Your task to perform on an android device: Add "alienware area 51" to the cart on bestbuy.com, then select checkout. Image 0: 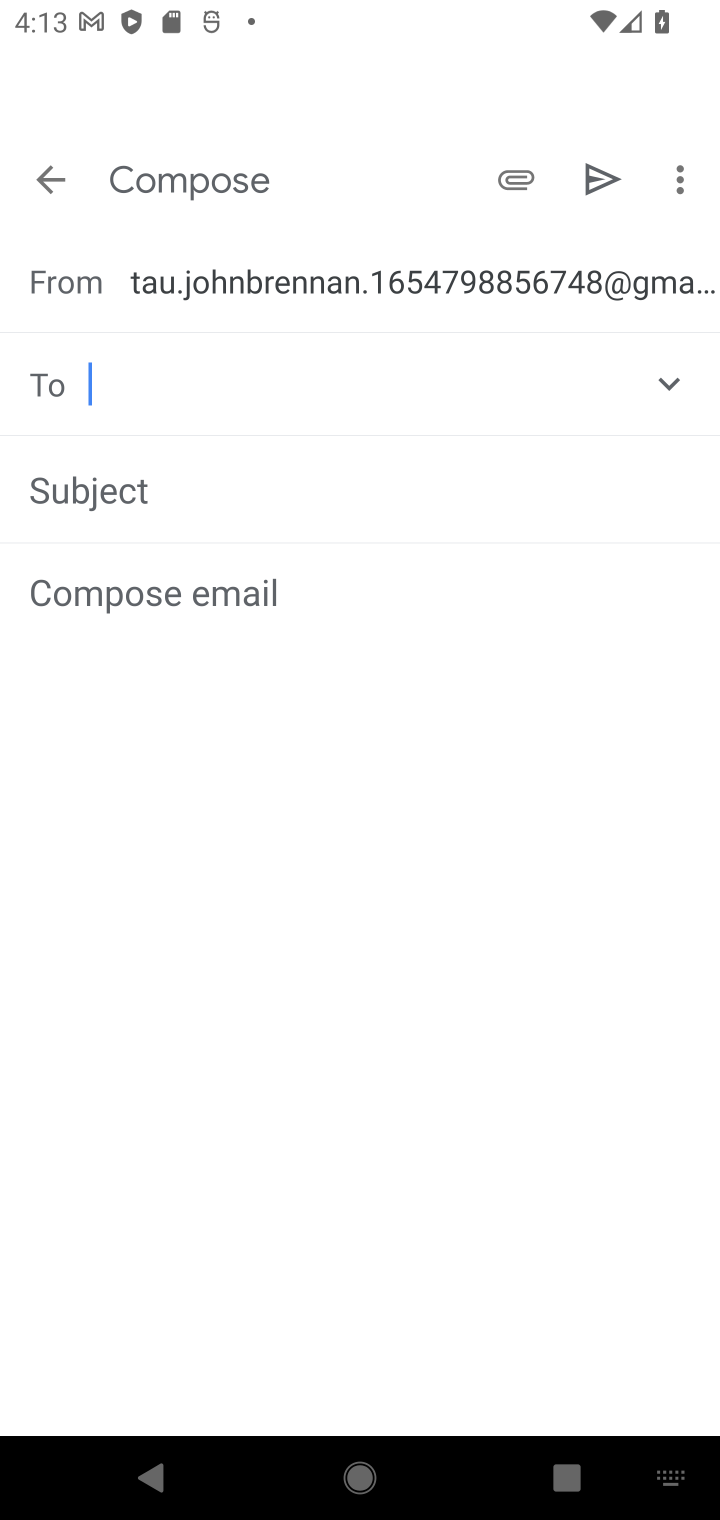
Step 0: press home button
Your task to perform on an android device: Add "alienware area 51" to the cart on bestbuy.com, then select checkout. Image 1: 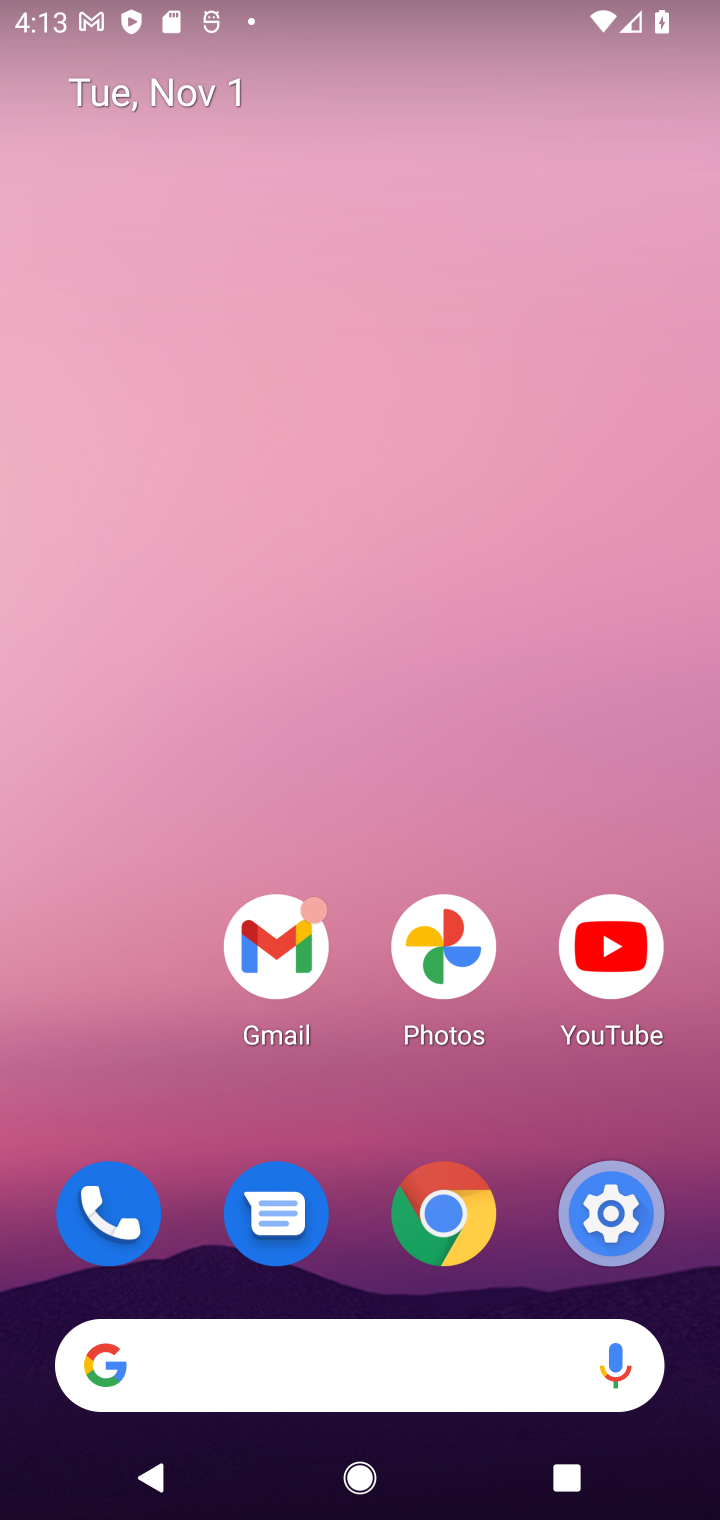
Step 1: click (315, 1338)
Your task to perform on an android device: Add "alienware area 51" to the cart on bestbuy.com, then select checkout. Image 2: 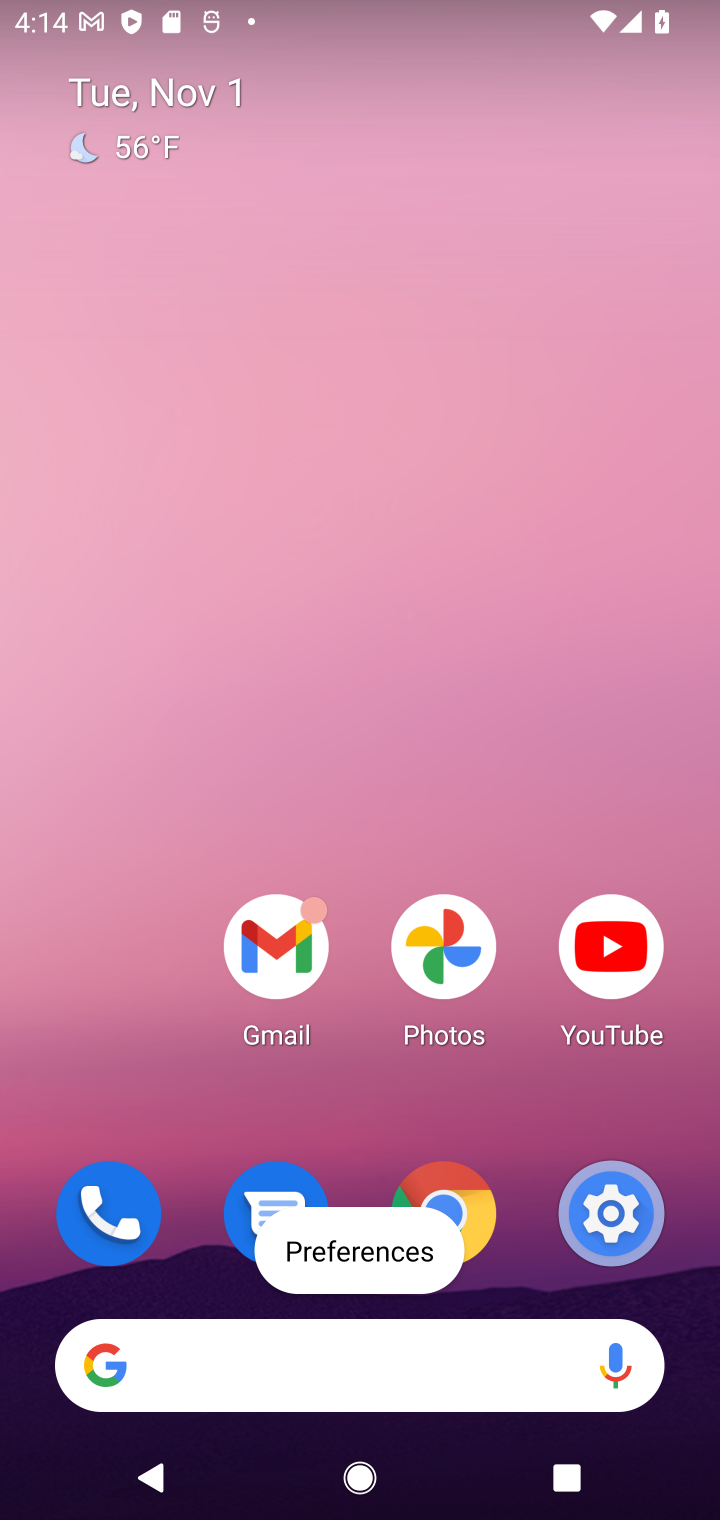
Step 2: click (439, 1360)
Your task to perform on an android device: Add "alienware area 51" to the cart on bestbuy.com, then select checkout. Image 3: 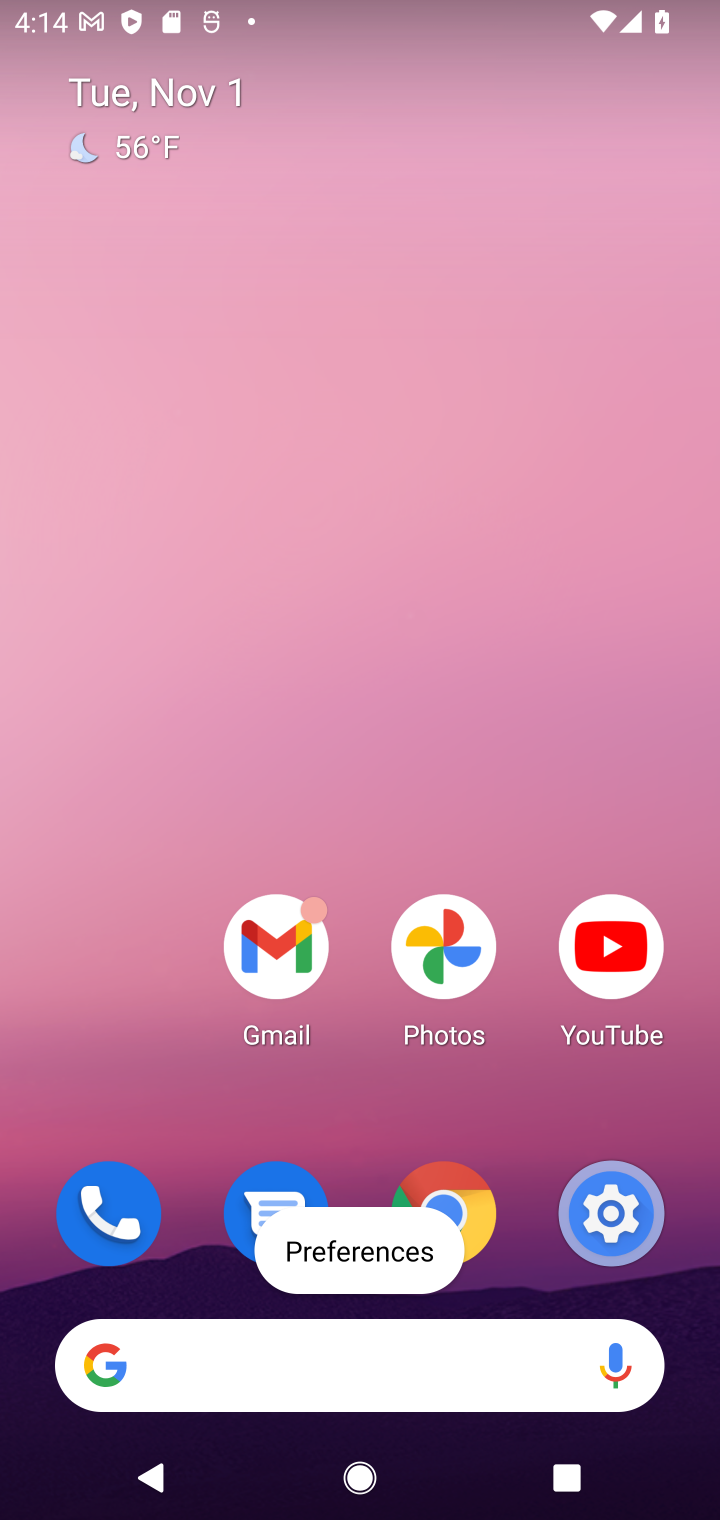
Step 3: click (430, 1362)
Your task to perform on an android device: Add "alienware area 51" to the cart on bestbuy.com, then select checkout. Image 4: 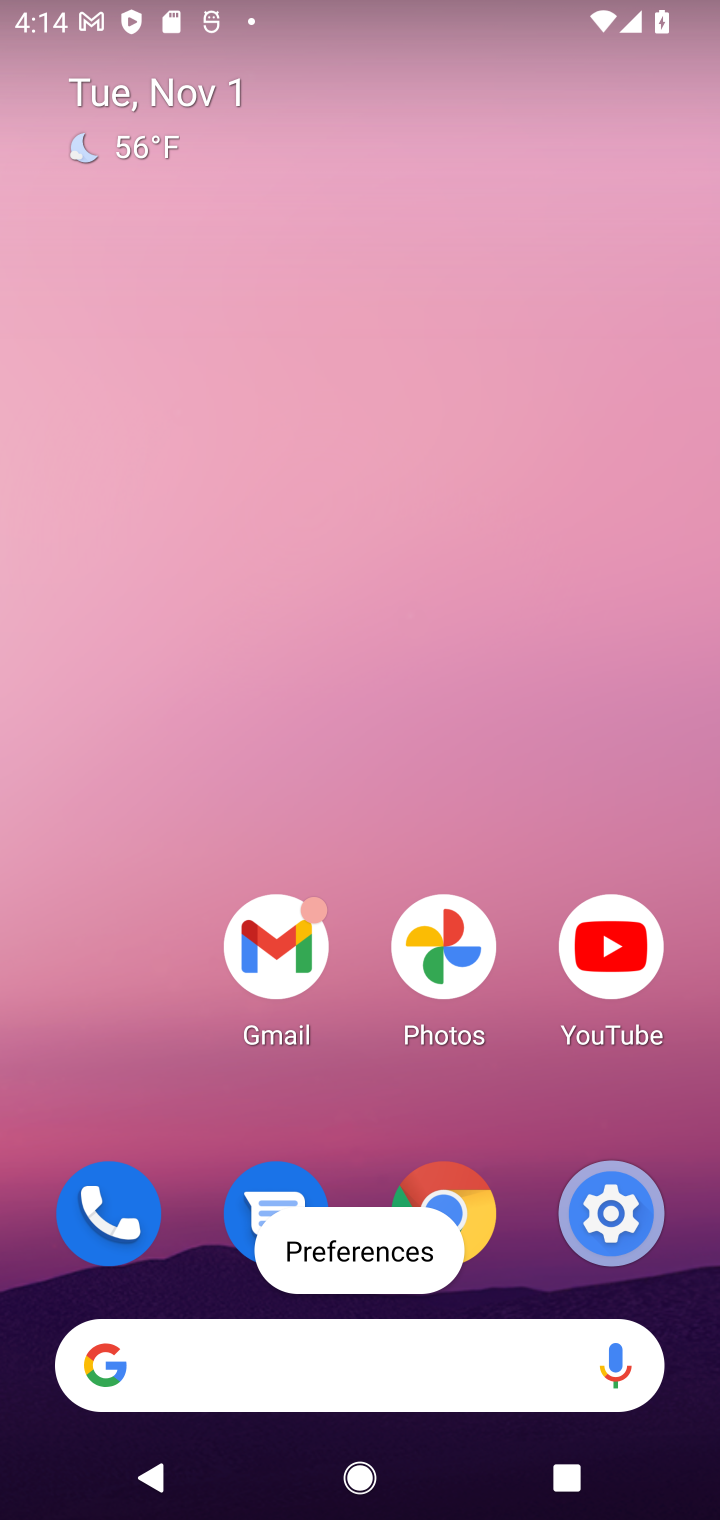
Step 4: click (394, 1348)
Your task to perform on an android device: Add "alienware area 51" to the cart on bestbuy.com, then select checkout. Image 5: 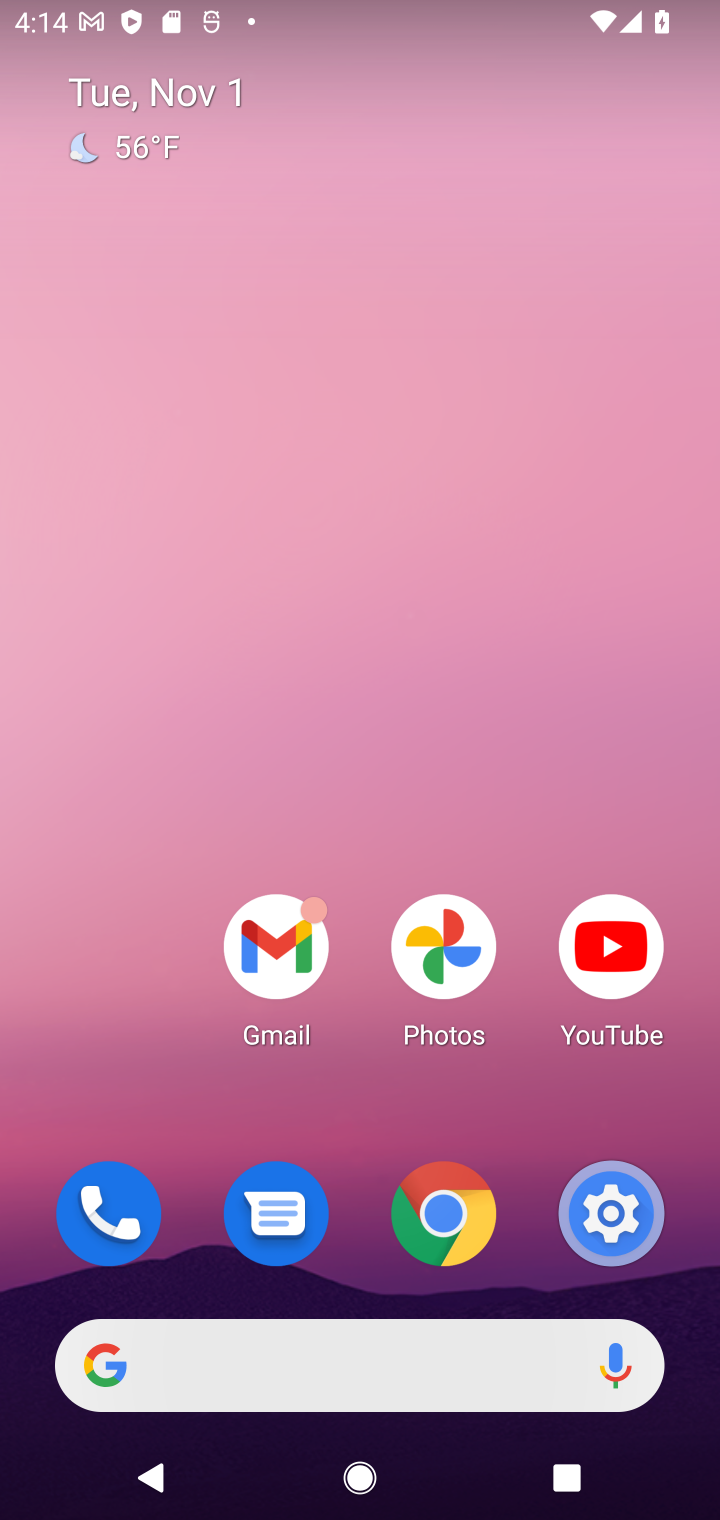
Step 5: click (394, 1346)
Your task to perform on an android device: Add "alienware area 51" to the cart on bestbuy.com, then select checkout. Image 6: 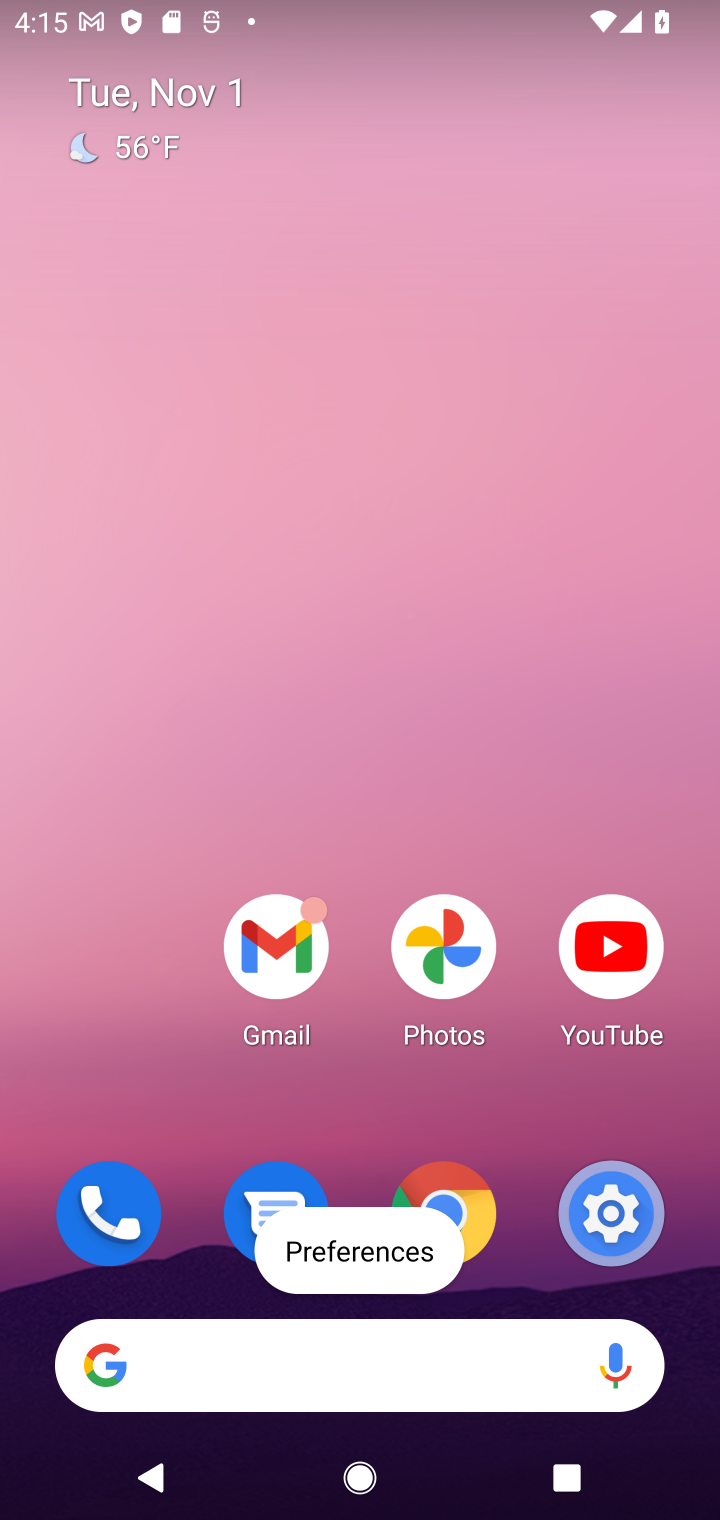
Step 6: click (394, 1354)
Your task to perform on an android device: Add "alienware area 51" to the cart on bestbuy.com, then select checkout. Image 7: 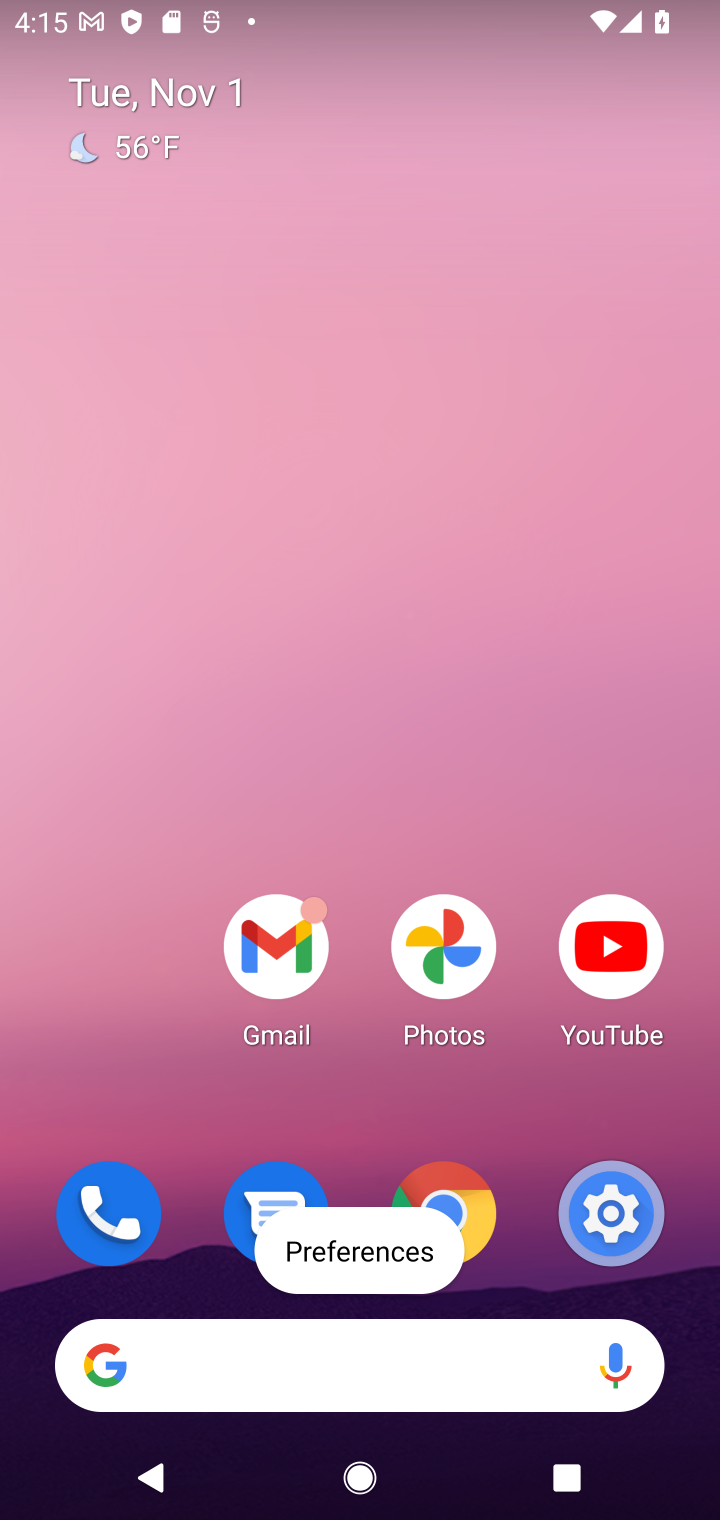
Step 7: click (352, 1372)
Your task to perform on an android device: Add "alienware area 51" to the cart on bestbuy.com, then select checkout. Image 8: 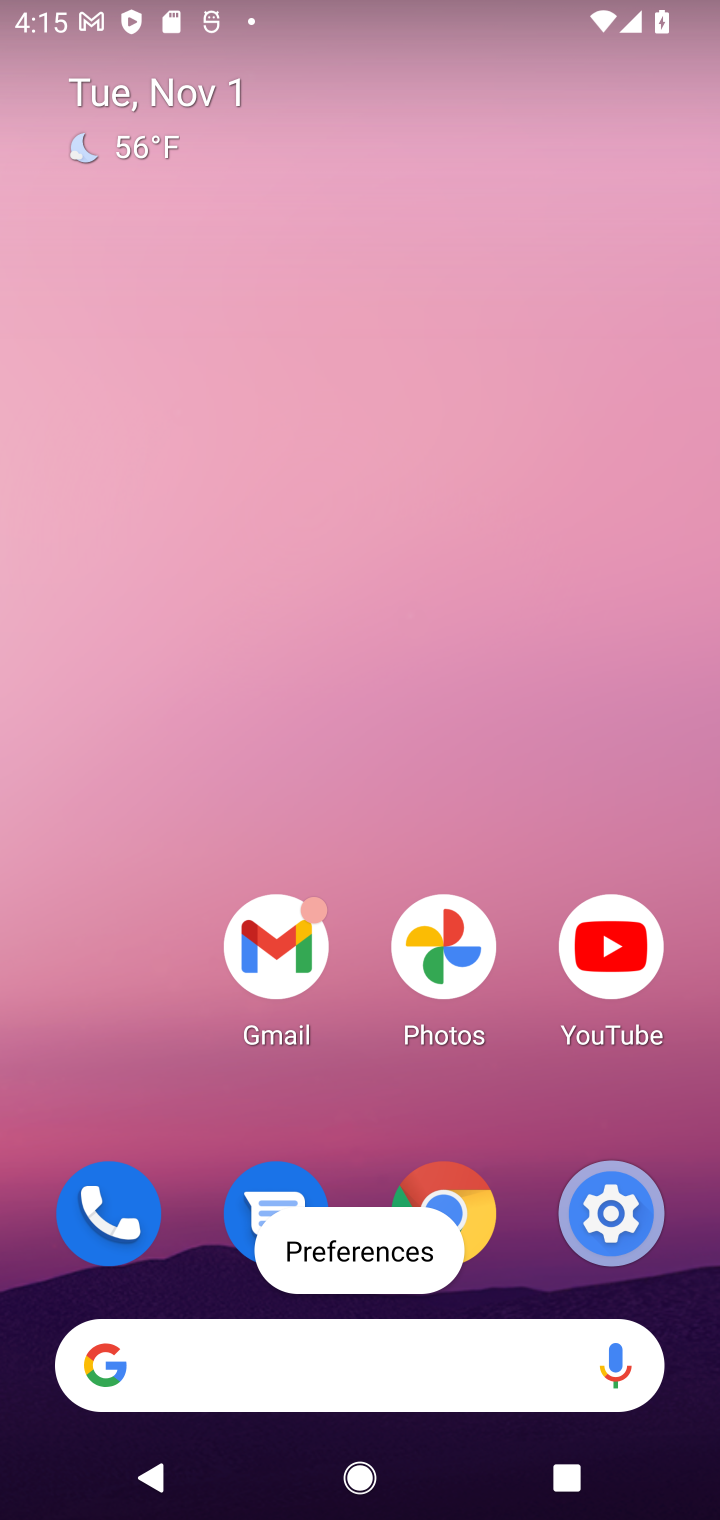
Step 8: click (352, 1367)
Your task to perform on an android device: Add "alienware area 51" to the cart on bestbuy.com, then select checkout. Image 9: 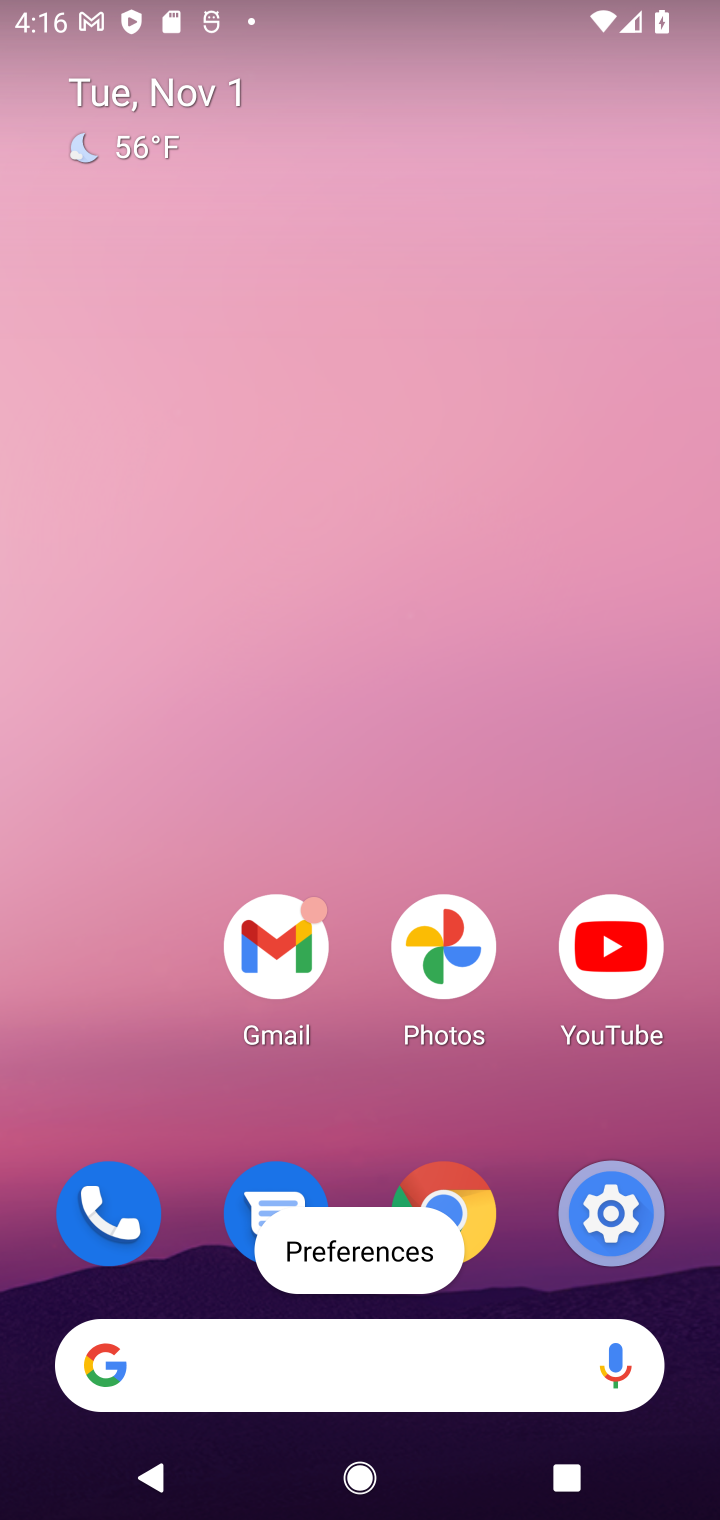
Step 9: click (344, 1351)
Your task to perform on an android device: Add "alienware area 51" to the cart on bestbuy.com, then select checkout. Image 10: 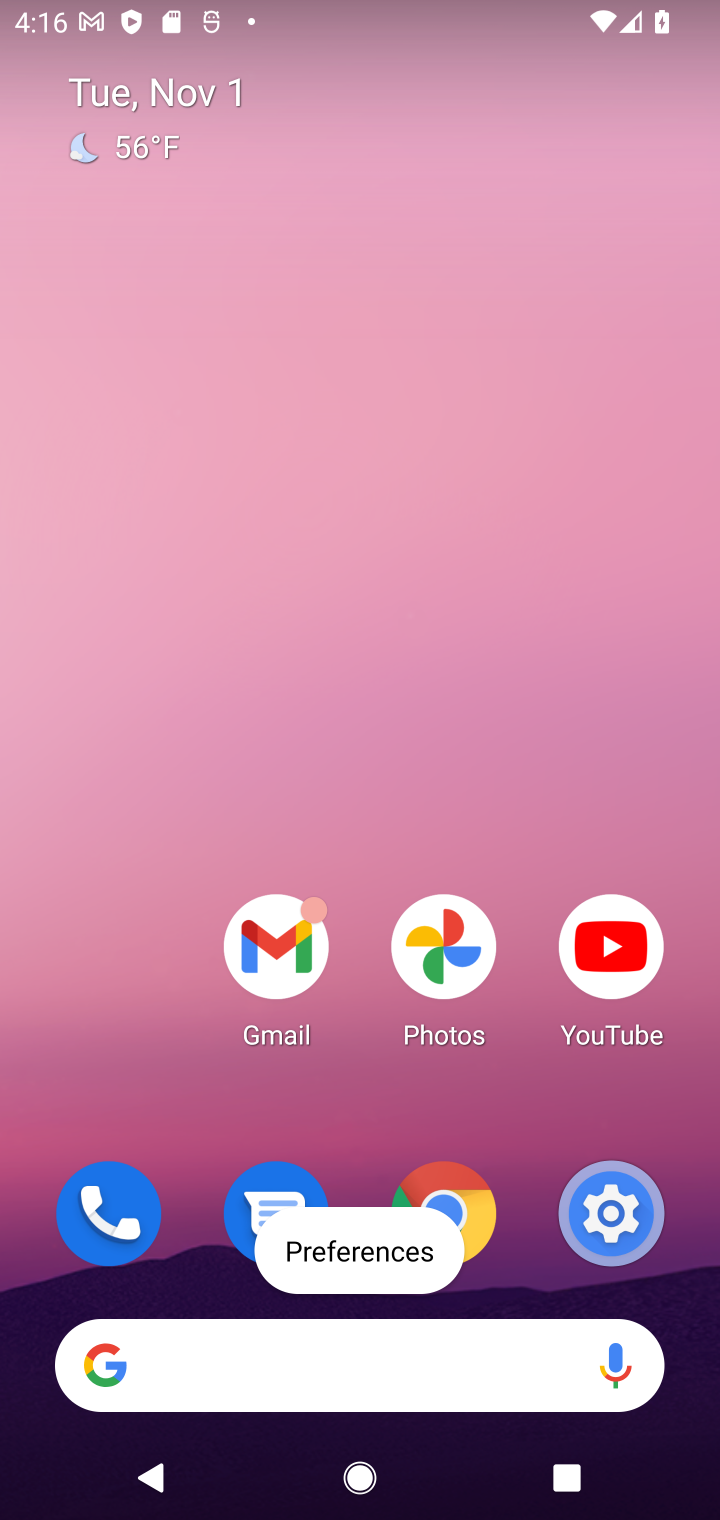
Step 10: click (283, 1373)
Your task to perform on an android device: Add "alienware area 51" to the cart on bestbuy.com, then select checkout. Image 11: 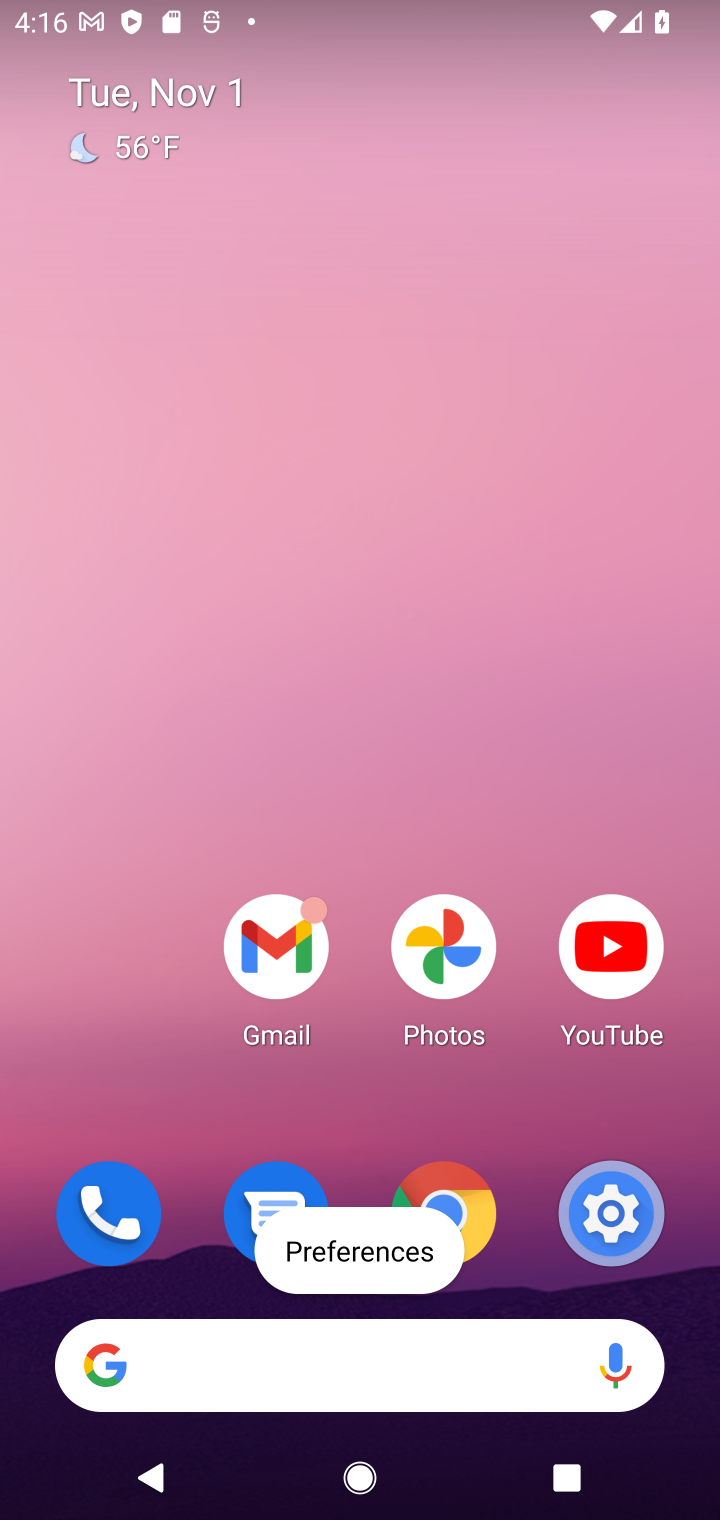
Step 11: click (432, 1228)
Your task to perform on an android device: Add "alienware area 51" to the cart on bestbuy.com, then select checkout. Image 12: 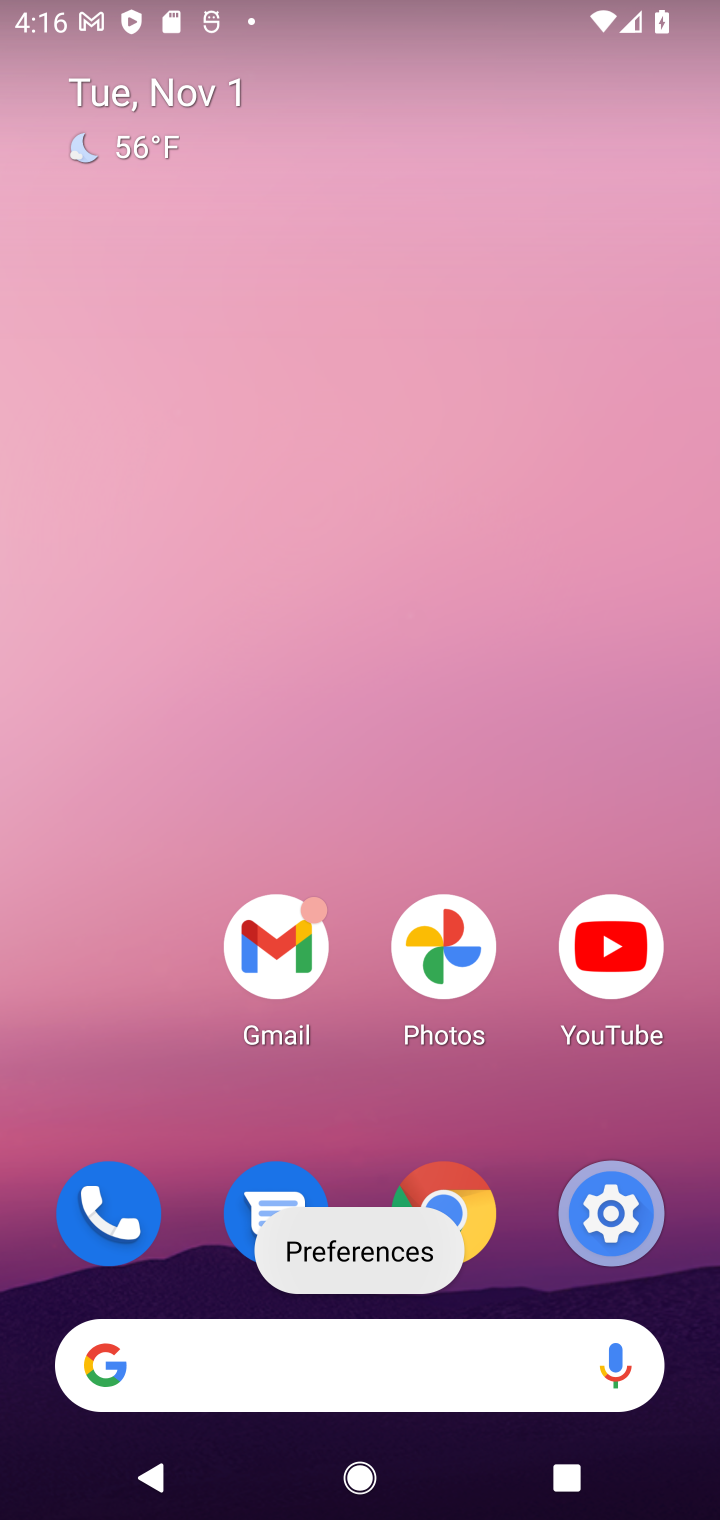
Step 12: click (469, 1192)
Your task to perform on an android device: Add "alienware area 51" to the cart on bestbuy.com, then select checkout. Image 13: 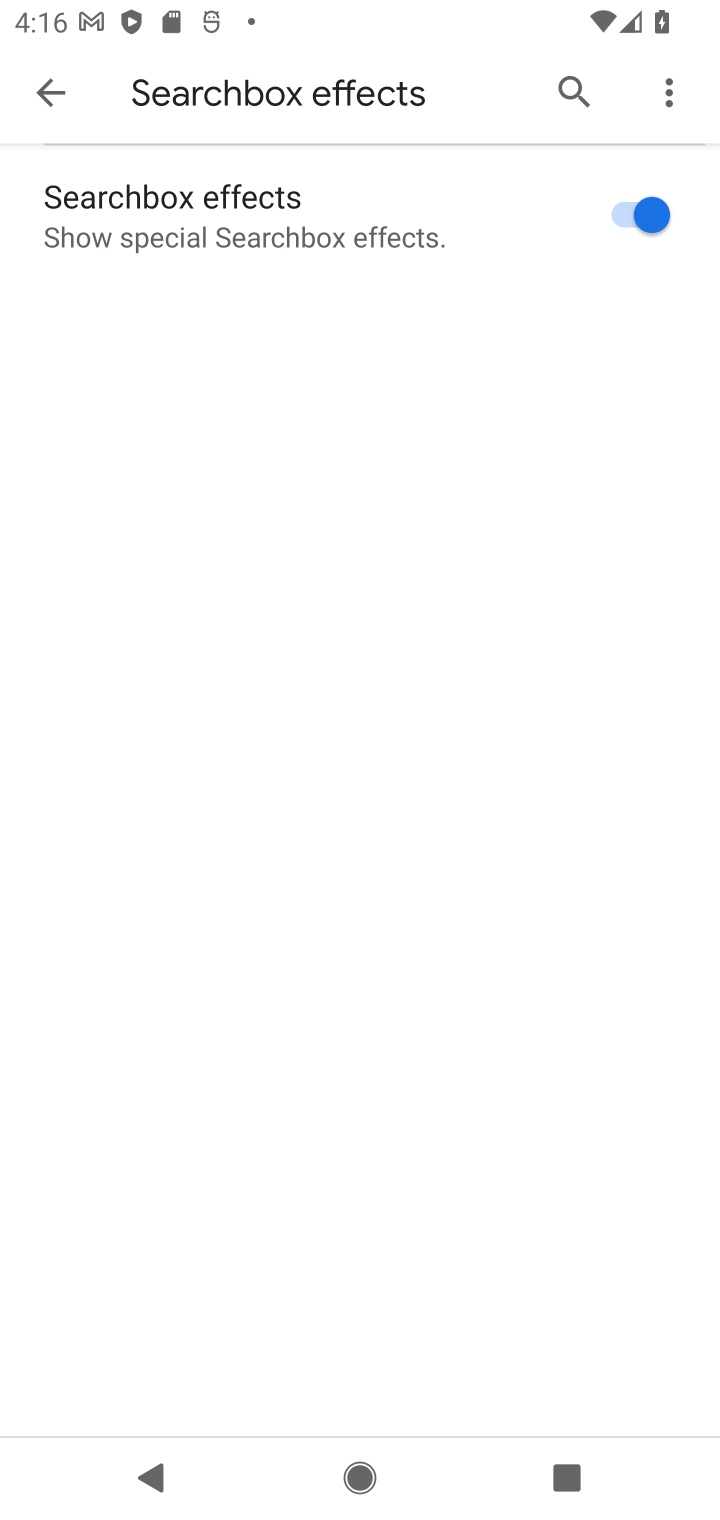
Step 13: click (301, 1391)
Your task to perform on an android device: Add "alienware area 51" to the cart on bestbuy.com, then select checkout. Image 14: 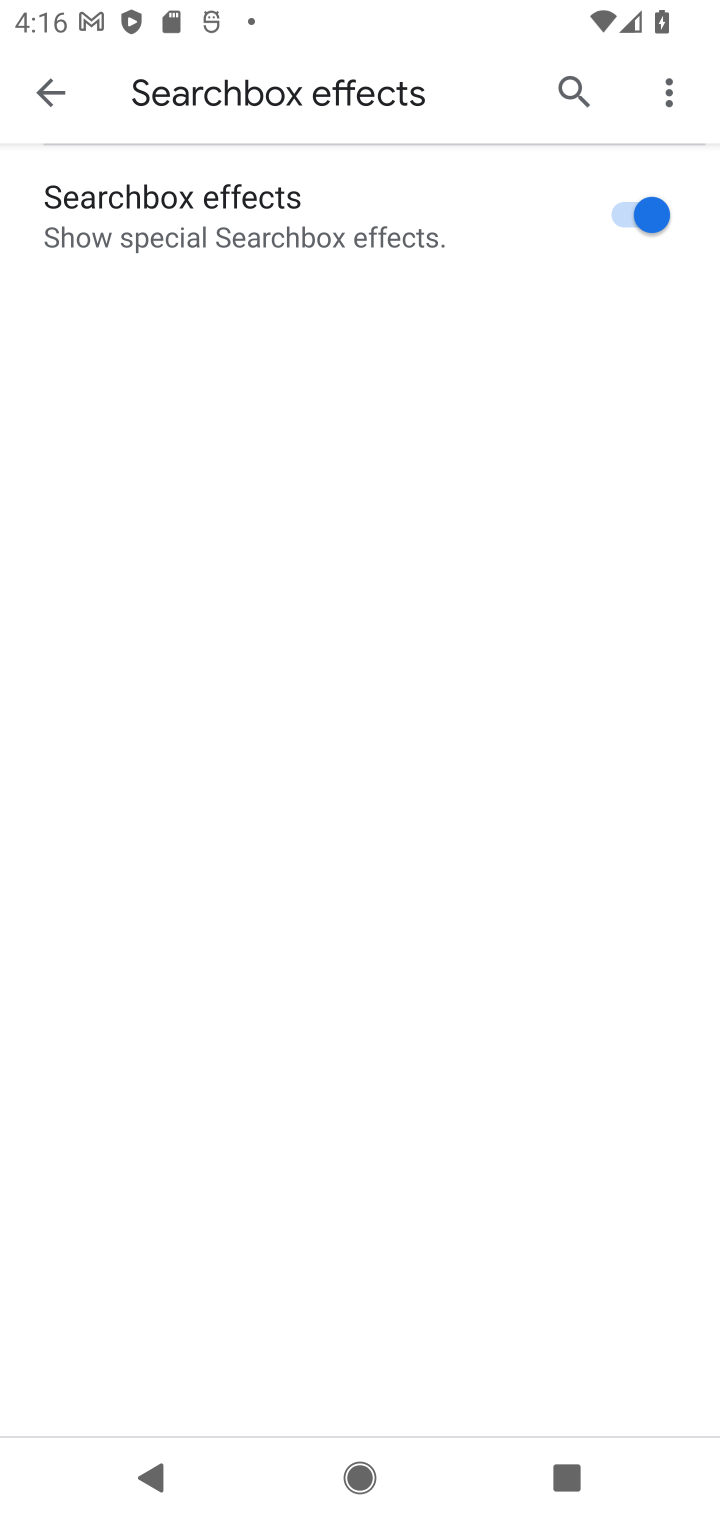
Step 14: task complete